Your task to perform on an android device: What's the weather going to be this weekend? Image 0: 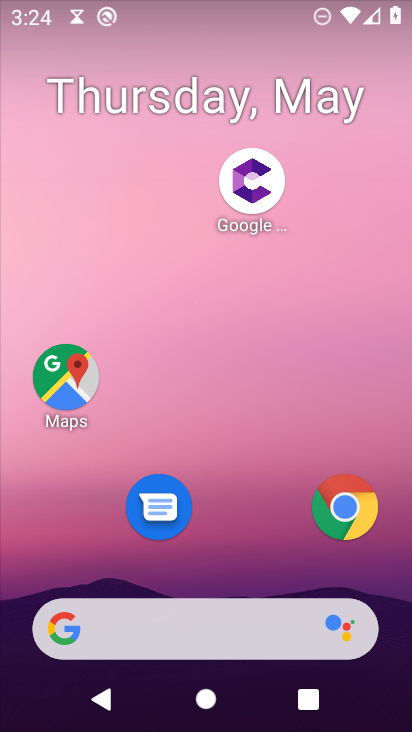
Step 0: press home button
Your task to perform on an android device: What's the weather going to be this weekend? Image 1: 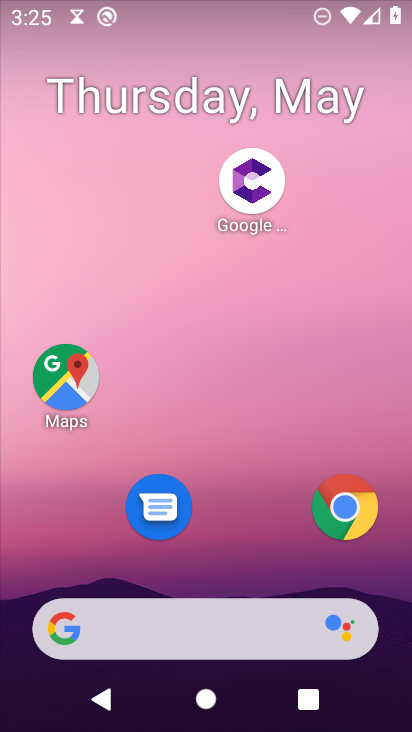
Step 1: type "weather going to be this weekend"
Your task to perform on an android device: What's the weather going to be this weekend? Image 2: 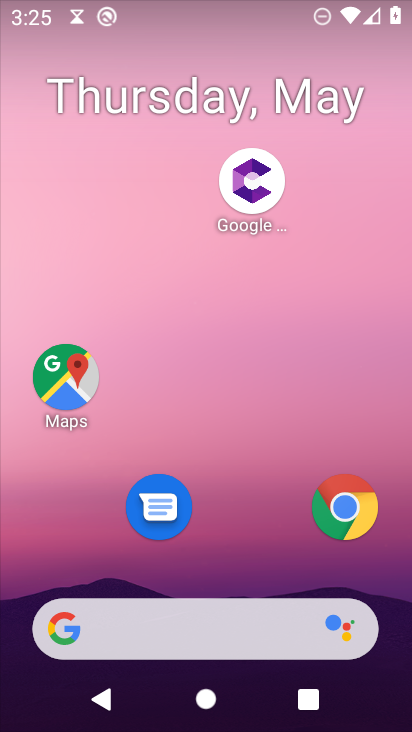
Step 2: click (74, 627)
Your task to perform on an android device: What's the weather going to be this weekend? Image 3: 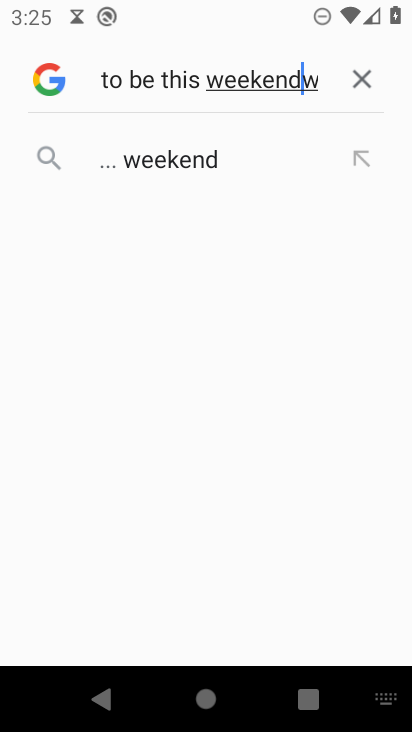
Step 3: click (361, 78)
Your task to perform on an android device: What's the weather going to be this weekend? Image 4: 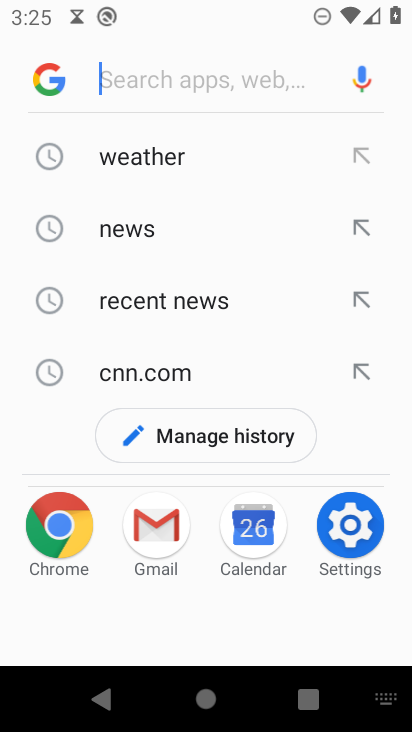
Step 4: type "weather going to be this weekend"
Your task to perform on an android device: What's the weather going to be this weekend? Image 5: 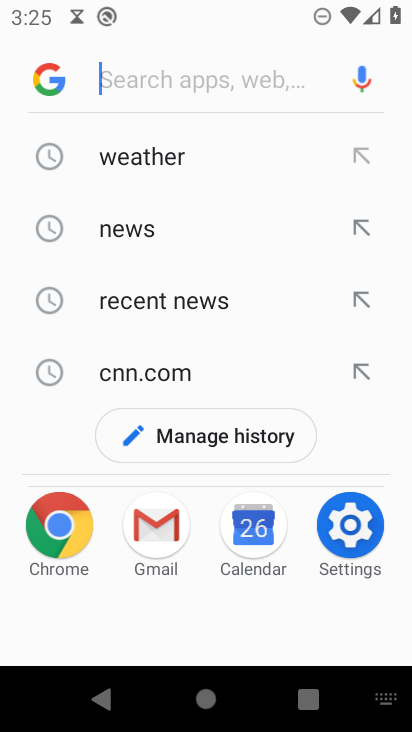
Step 5: click (214, 93)
Your task to perform on an android device: What's the weather going to be this weekend? Image 6: 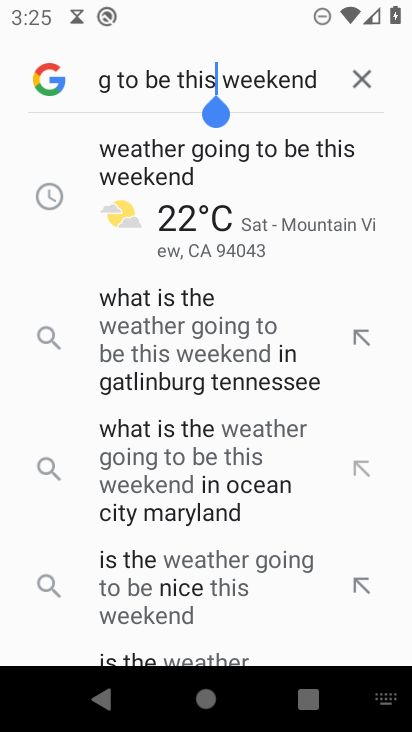
Step 6: click (216, 147)
Your task to perform on an android device: What's the weather going to be this weekend? Image 7: 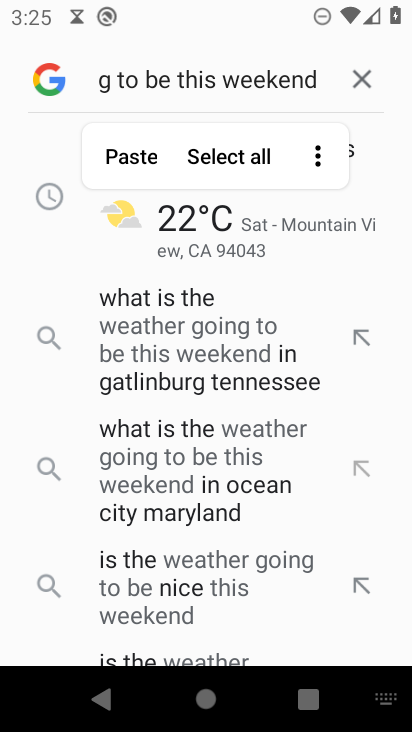
Step 7: click (365, 316)
Your task to perform on an android device: What's the weather going to be this weekend? Image 8: 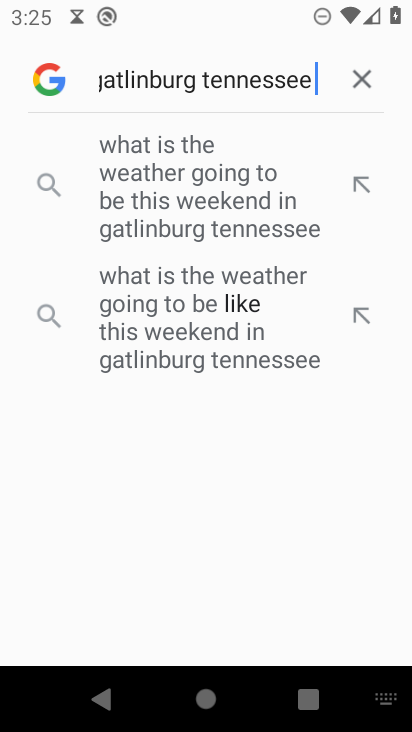
Step 8: click (364, 78)
Your task to perform on an android device: What's the weather going to be this weekend? Image 9: 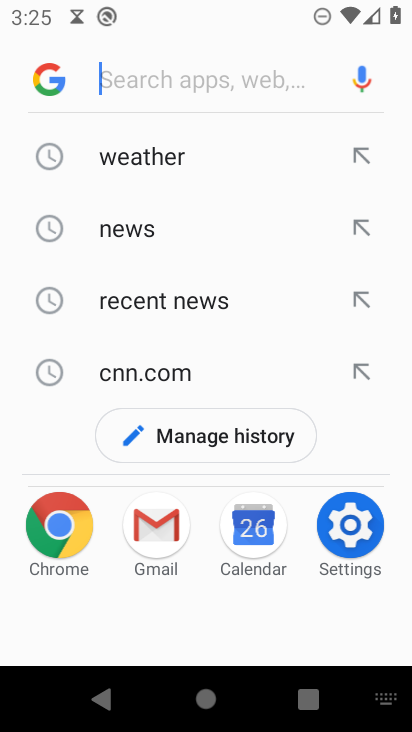
Step 9: type "weather going to be this weekend"
Your task to perform on an android device: What's the weather going to be this weekend? Image 10: 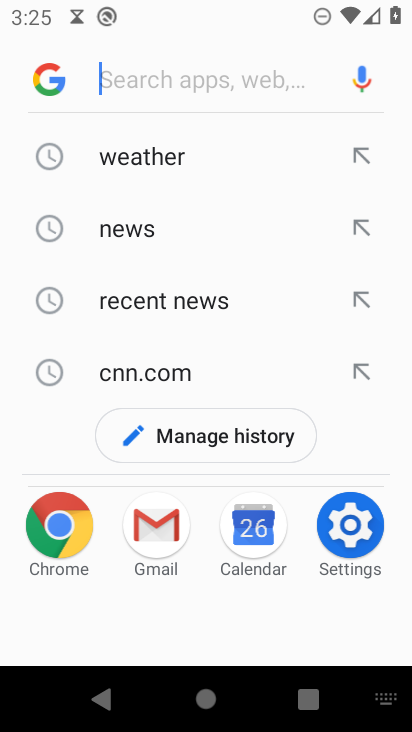
Step 10: click (205, 90)
Your task to perform on an android device: What's the weather going to be this weekend? Image 11: 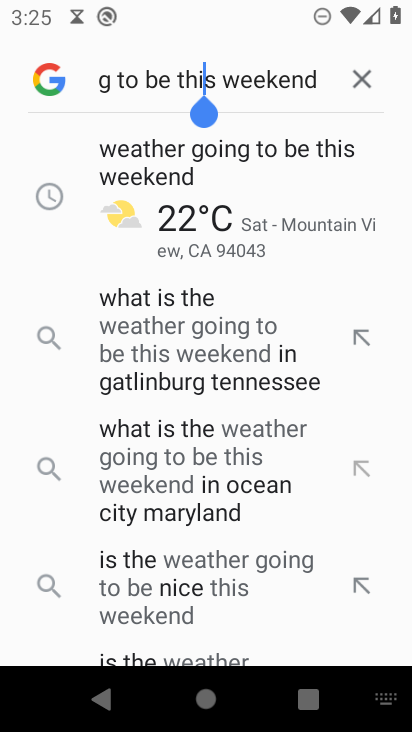
Step 11: click (233, 155)
Your task to perform on an android device: What's the weather going to be this weekend? Image 12: 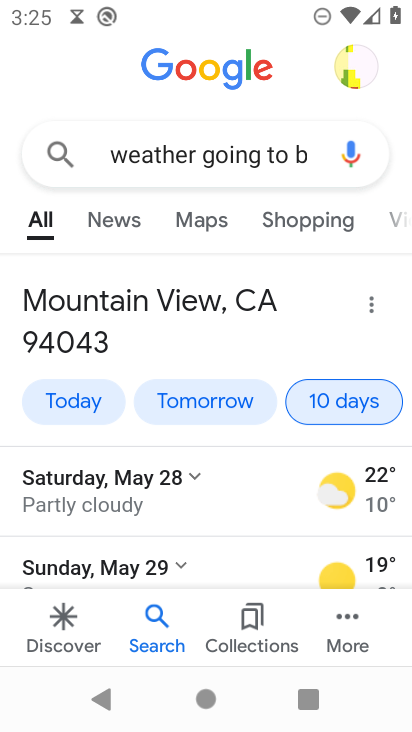
Step 12: task complete